Your task to perform on an android device: Find coffee shops on Maps Image 0: 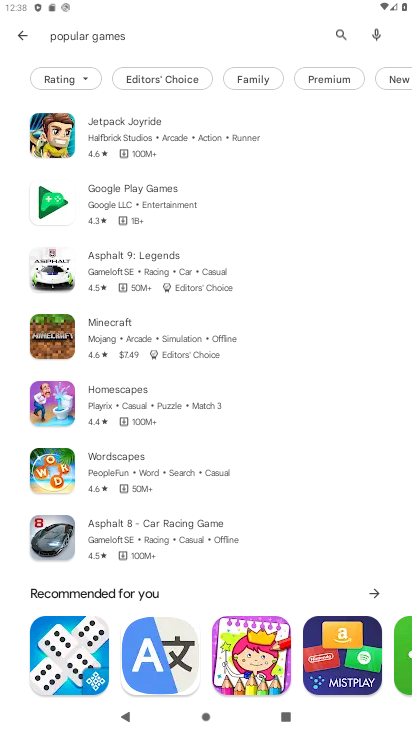
Step 0: press home button
Your task to perform on an android device: Find coffee shops on Maps Image 1: 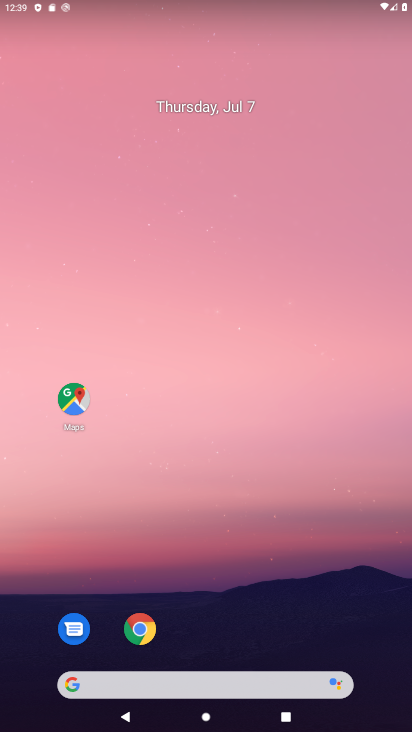
Step 1: drag from (216, 581) to (267, 97)
Your task to perform on an android device: Find coffee shops on Maps Image 2: 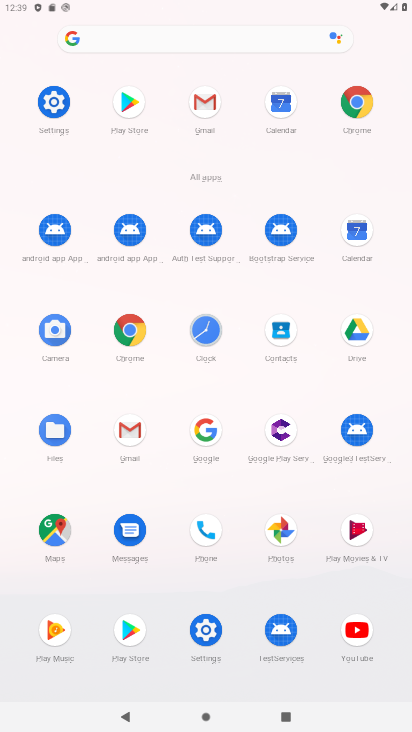
Step 2: click (55, 531)
Your task to perform on an android device: Find coffee shops on Maps Image 3: 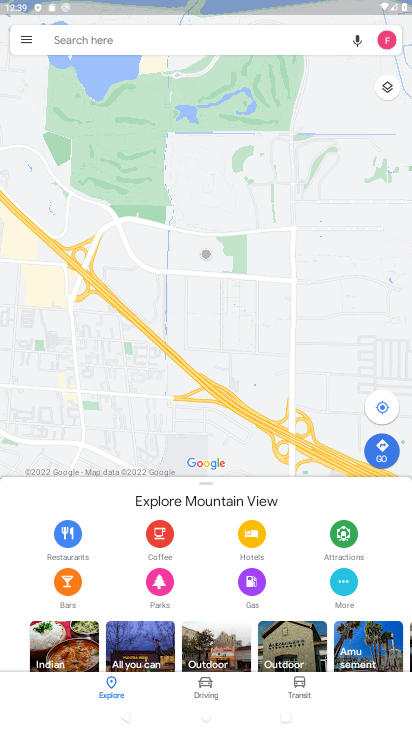
Step 3: click (210, 40)
Your task to perform on an android device: Find coffee shops on Maps Image 4: 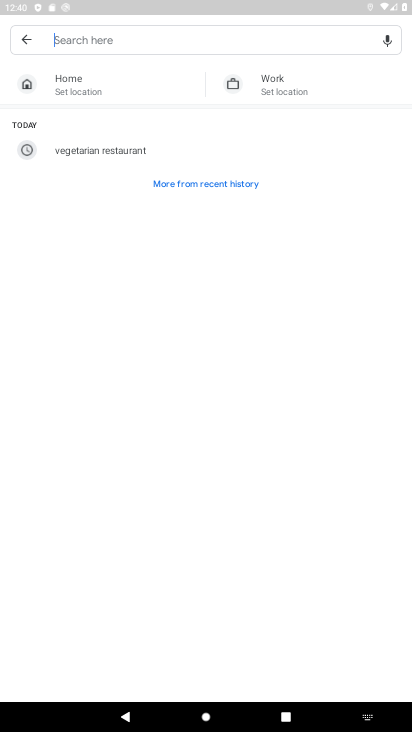
Step 4: type "coffee shops"
Your task to perform on an android device: Find coffee shops on Maps Image 5: 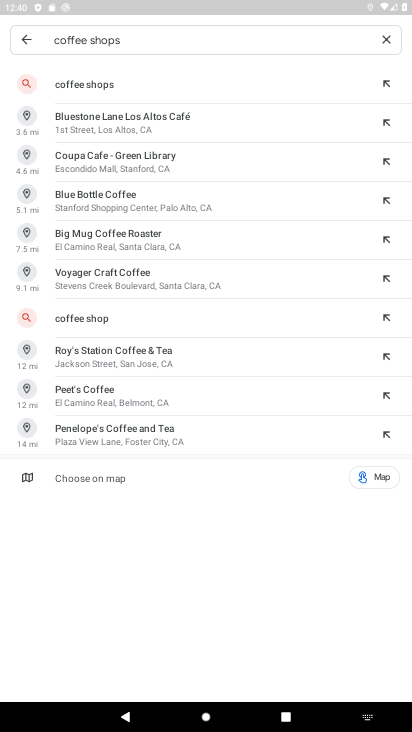
Step 5: click (92, 87)
Your task to perform on an android device: Find coffee shops on Maps Image 6: 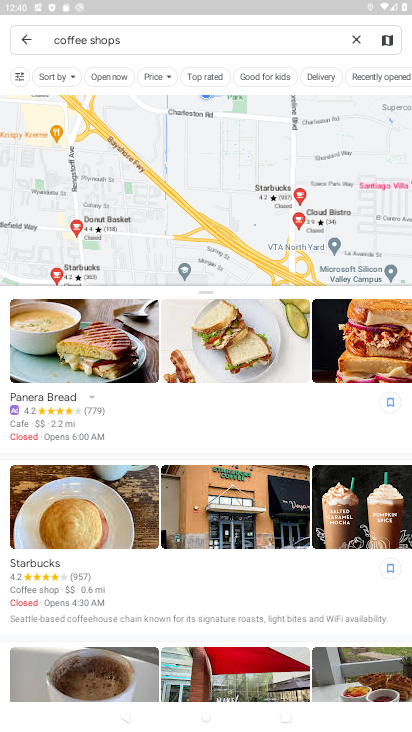
Step 6: task complete